Your task to perform on an android device: all mails in gmail Image 0: 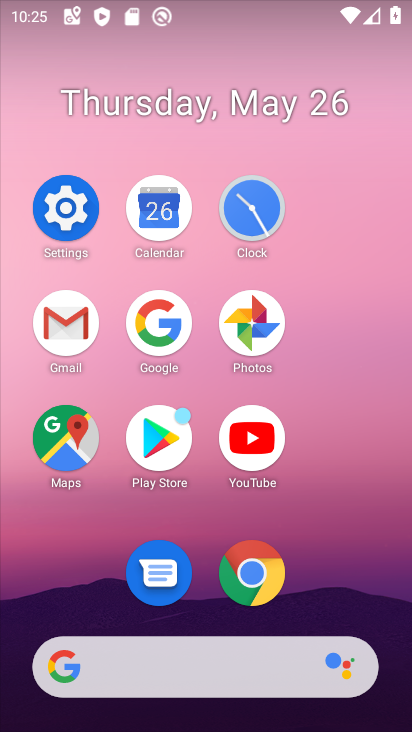
Step 0: click (87, 329)
Your task to perform on an android device: all mails in gmail Image 1: 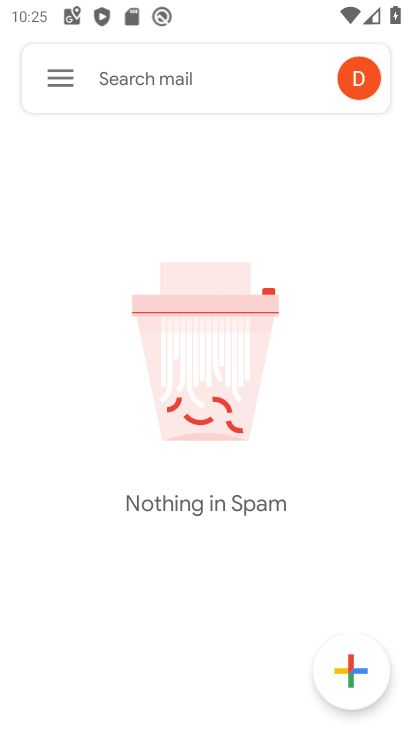
Step 1: click (51, 92)
Your task to perform on an android device: all mails in gmail Image 2: 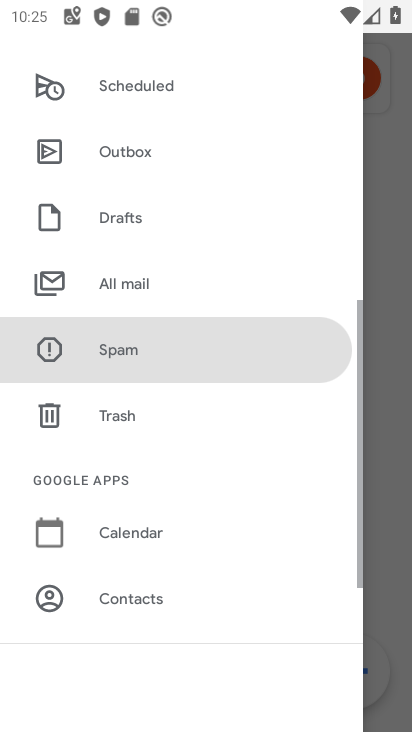
Step 2: click (214, 277)
Your task to perform on an android device: all mails in gmail Image 3: 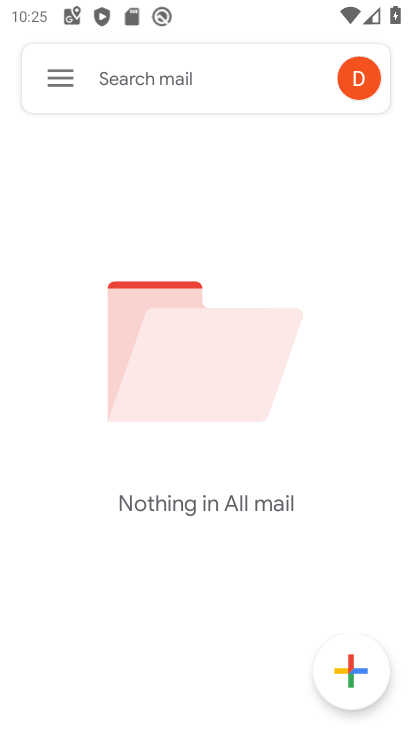
Step 3: task complete